Your task to perform on an android device: Open the web browser Image 0: 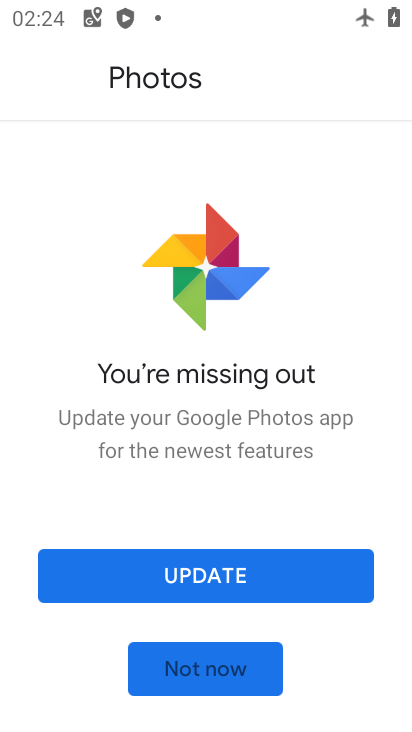
Step 0: press back button
Your task to perform on an android device: Open the web browser Image 1: 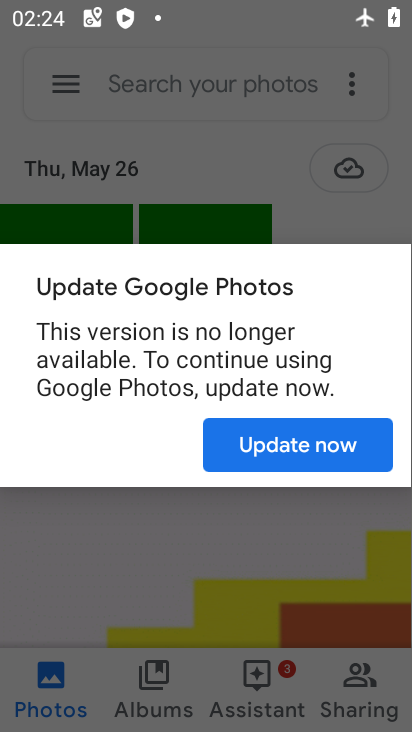
Step 1: press back button
Your task to perform on an android device: Open the web browser Image 2: 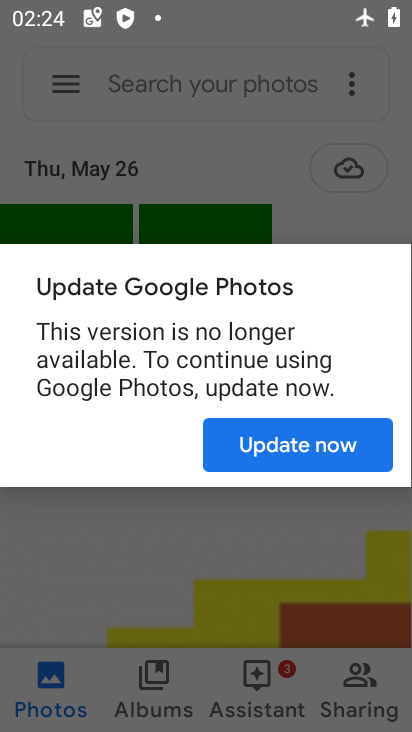
Step 2: press home button
Your task to perform on an android device: Open the web browser Image 3: 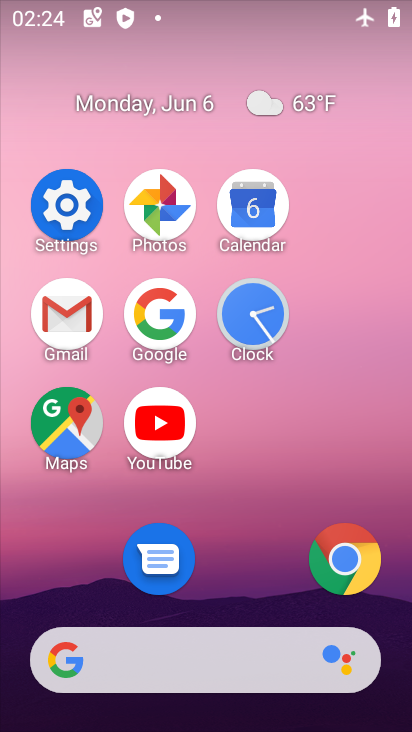
Step 3: click (330, 555)
Your task to perform on an android device: Open the web browser Image 4: 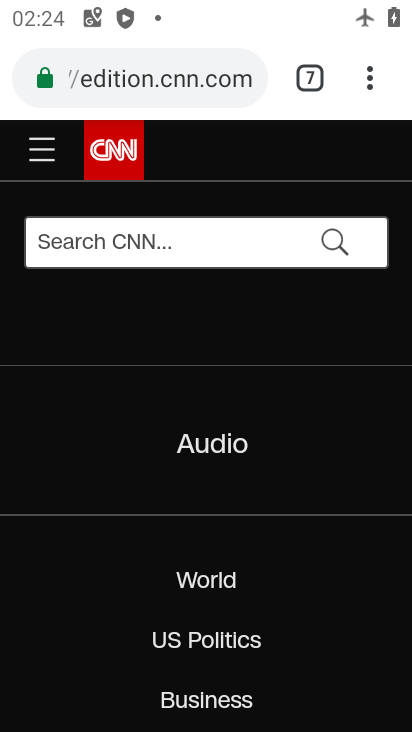
Step 4: task complete